Your task to perform on an android device: check android version Image 0: 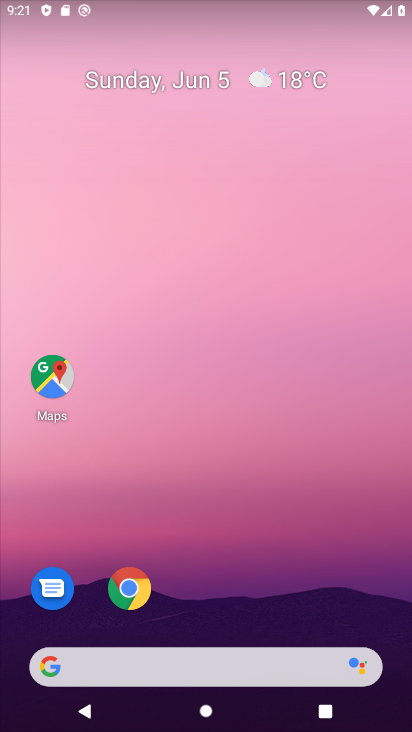
Step 0: drag from (325, 593) to (312, 139)
Your task to perform on an android device: check android version Image 1: 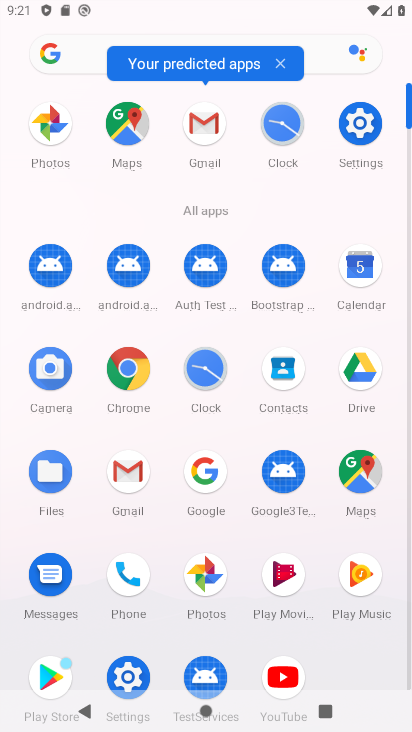
Step 1: click (359, 129)
Your task to perform on an android device: check android version Image 2: 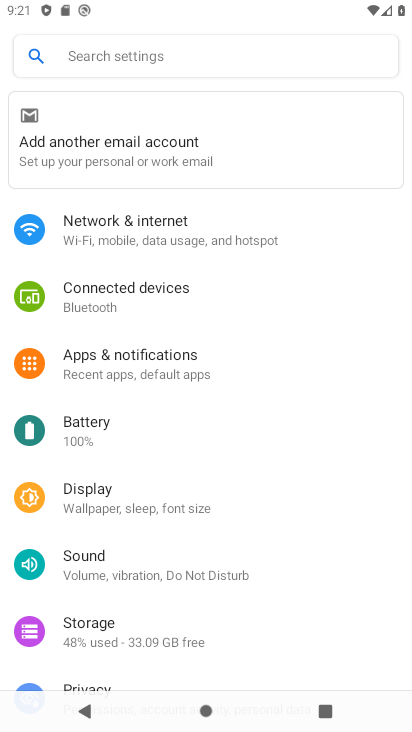
Step 2: drag from (343, 550) to (330, 416)
Your task to perform on an android device: check android version Image 3: 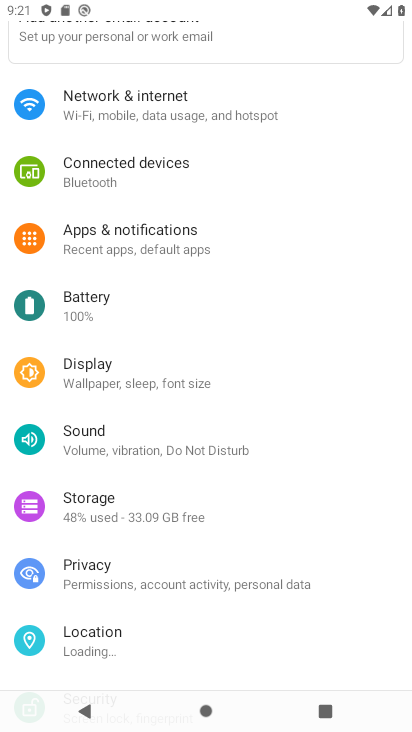
Step 3: drag from (334, 546) to (342, 403)
Your task to perform on an android device: check android version Image 4: 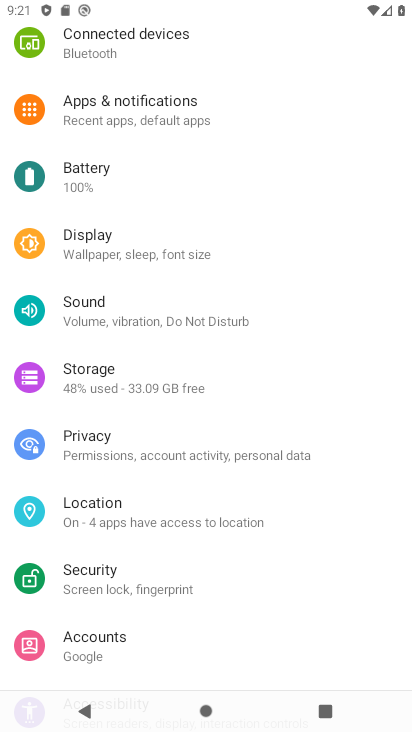
Step 4: drag from (333, 555) to (327, 382)
Your task to perform on an android device: check android version Image 5: 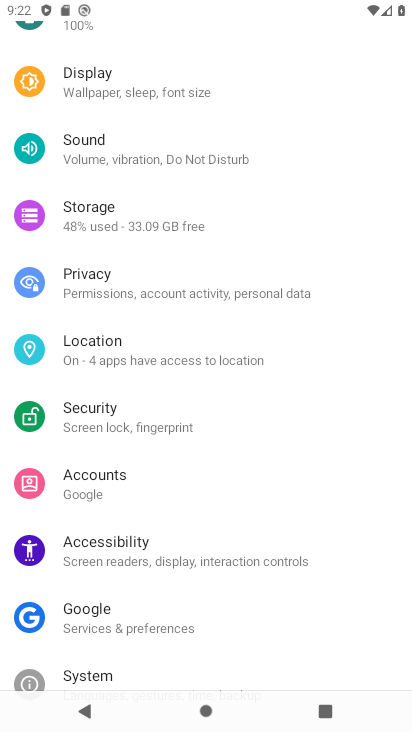
Step 5: drag from (329, 593) to (312, 417)
Your task to perform on an android device: check android version Image 6: 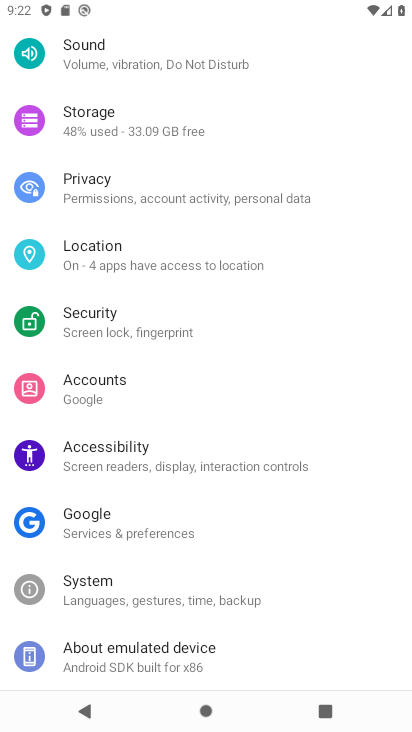
Step 6: drag from (340, 267) to (337, 382)
Your task to perform on an android device: check android version Image 7: 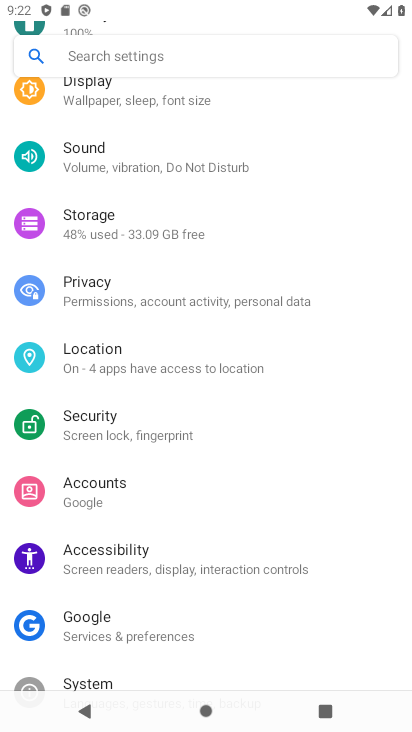
Step 7: drag from (332, 193) to (339, 324)
Your task to perform on an android device: check android version Image 8: 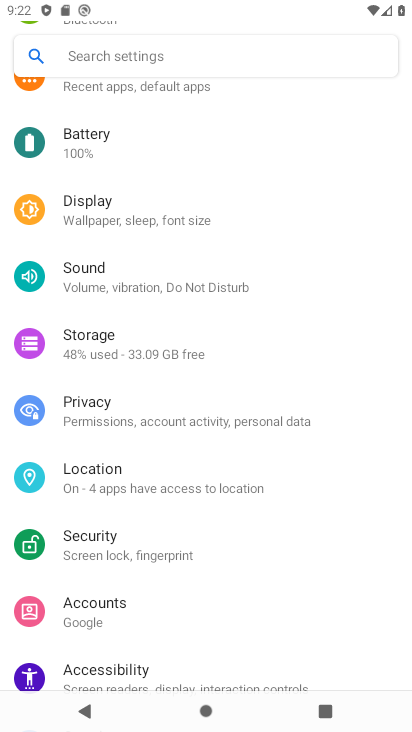
Step 8: drag from (330, 198) to (342, 304)
Your task to perform on an android device: check android version Image 9: 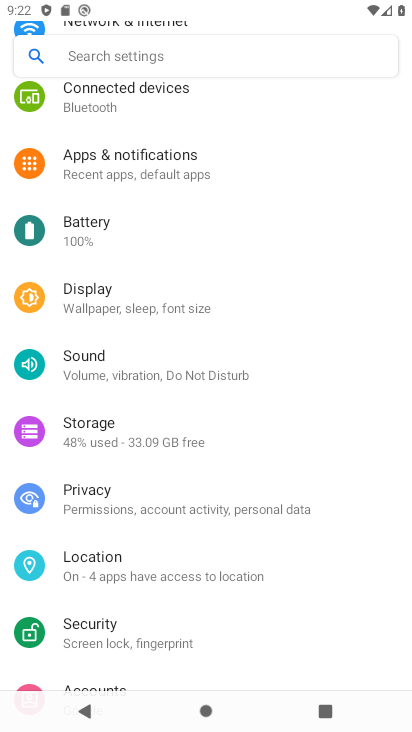
Step 9: drag from (350, 230) to (353, 390)
Your task to perform on an android device: check android version Image 10: 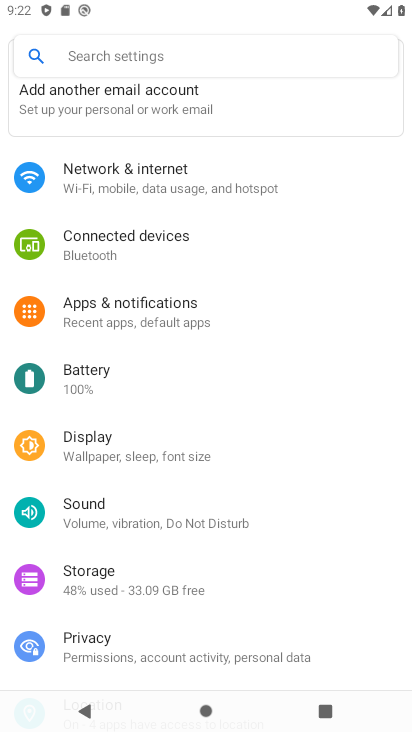
Step 10: drag from (335, 237) to (320, 392)
Your task to perform on an android device: check android version Image 11: 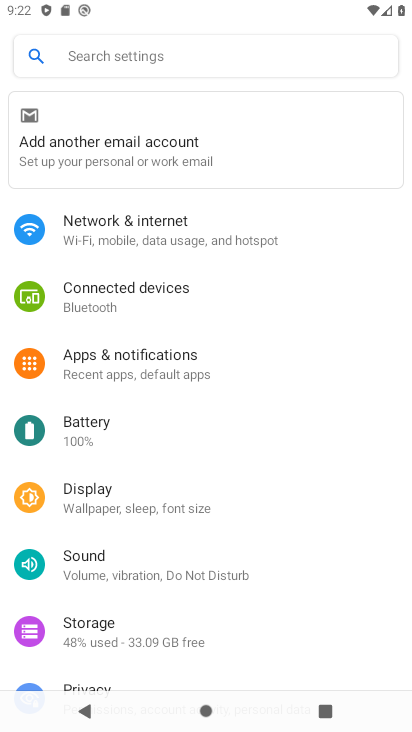
Step 11: drag from (335, 481) to (330, 346)
Your task to perform on an android device: check android version Image 12: 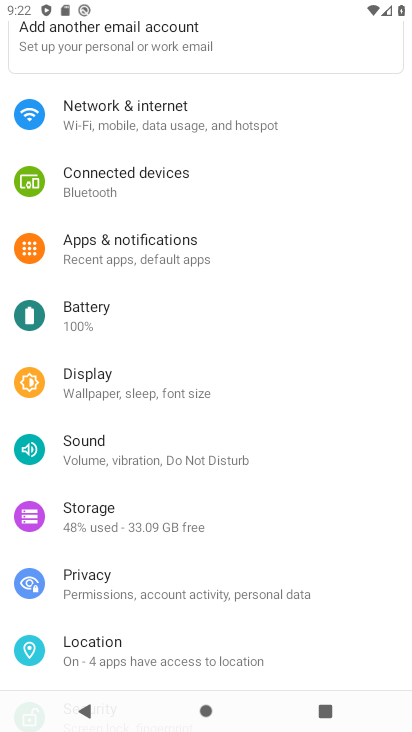
Step 12: drag from (313, 482) to (309, 358)
Your task to perform on an android device: check android version Image 13: 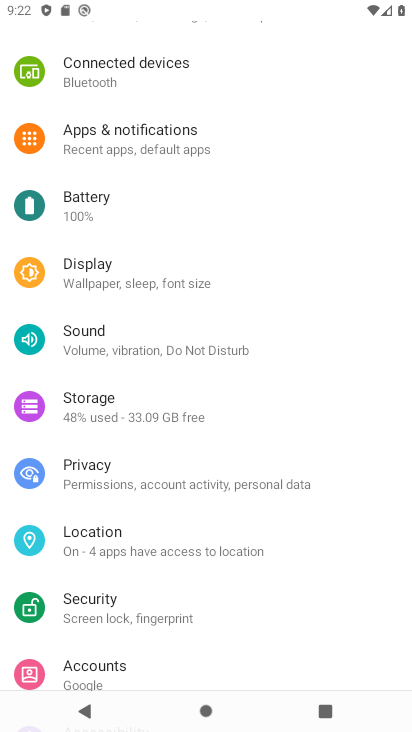
Step 13: drag from (310, 546) to (308, 403)
Your task to perform on an android device: check android version Image 14: 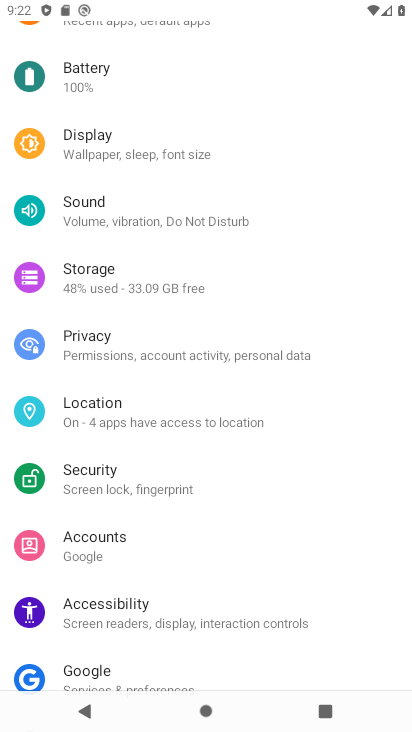
Step 14: drag from (321, 559) to (315, 430)
Your task to perform on an android device: check android version Image 15: 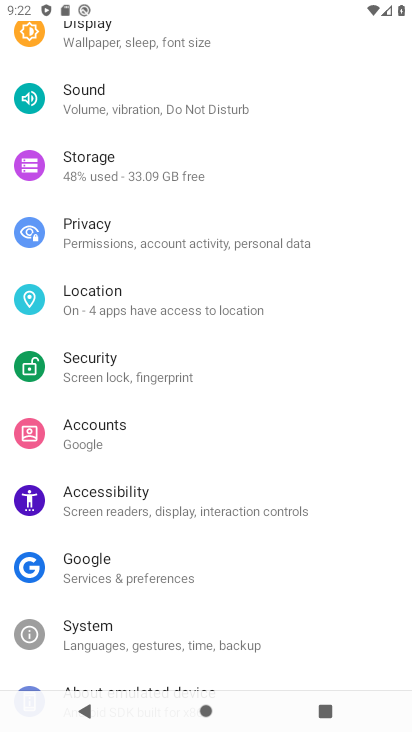
Step 15: drag from (331, 571) to (323, 400)
Your task to perform on an android device: check android version Image 16: 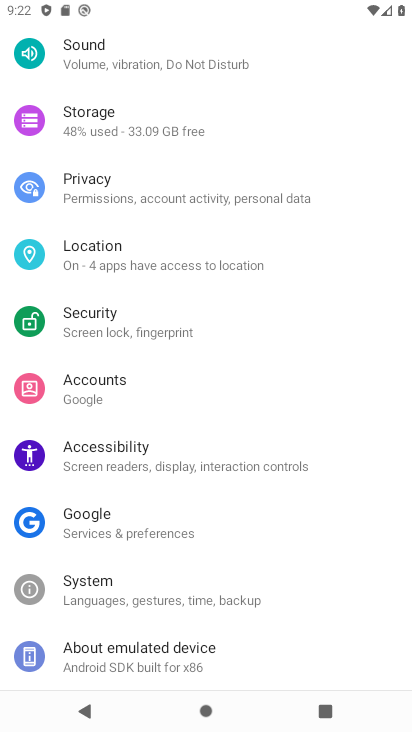
Step 16: click (262, 594)
Your task to perform on an android device: check android version Image 17: 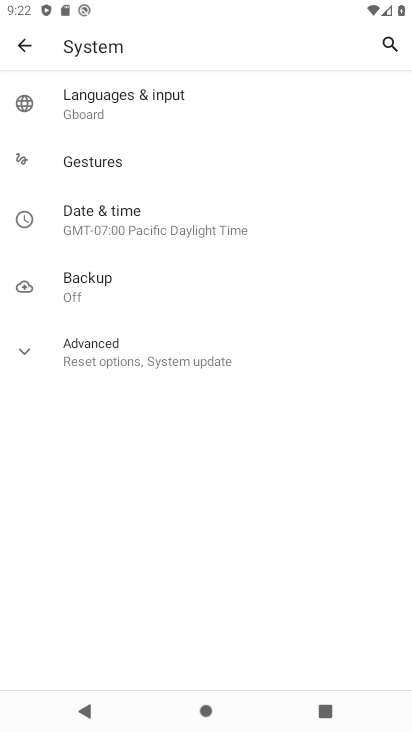
Step 17: click (214, 347)
Your task to perform on an android device: check android version Image 18: 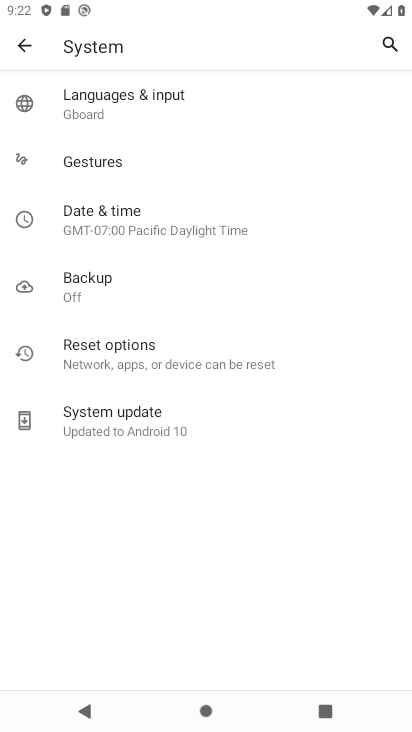
Step 18: click (145, 409)
Your task to perform on an android device: check android version Image 19: 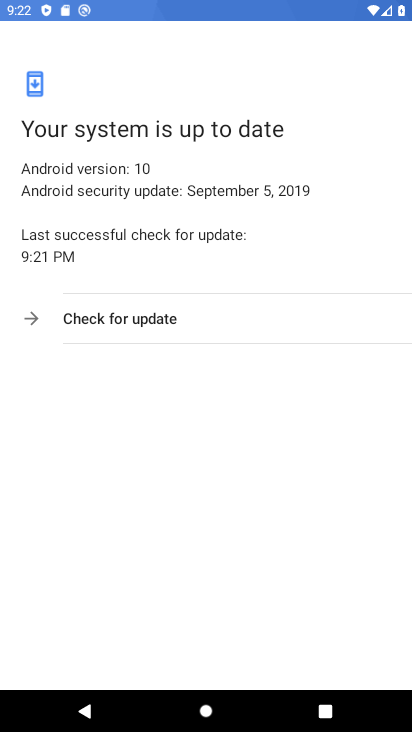
Step 19: task complete